Your task to perform on an android device: open chrome privacy settings Image 0: 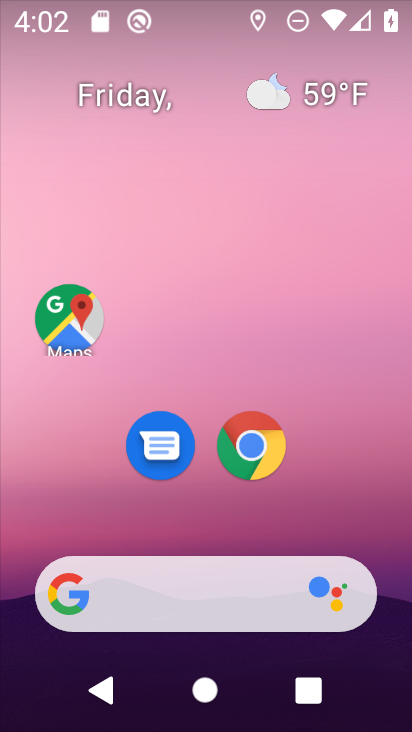
Step 0: click (249, 444)
Your task to perform on an android device: open chrome privacy settings Image 1: 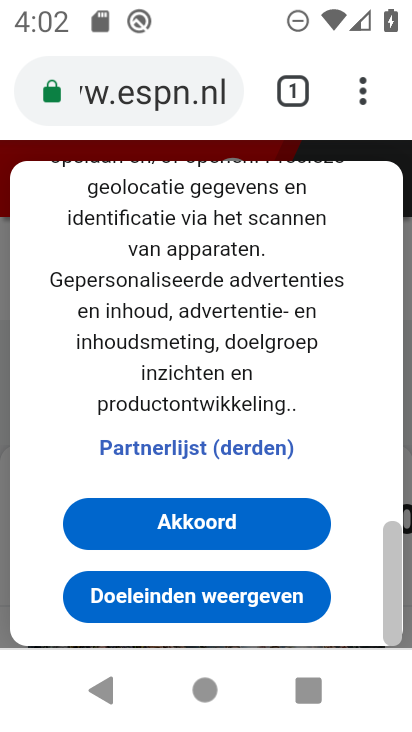
Step 1: click (364, 93)
Your task to perform on an android device: open chrome privacy settings Image 2: 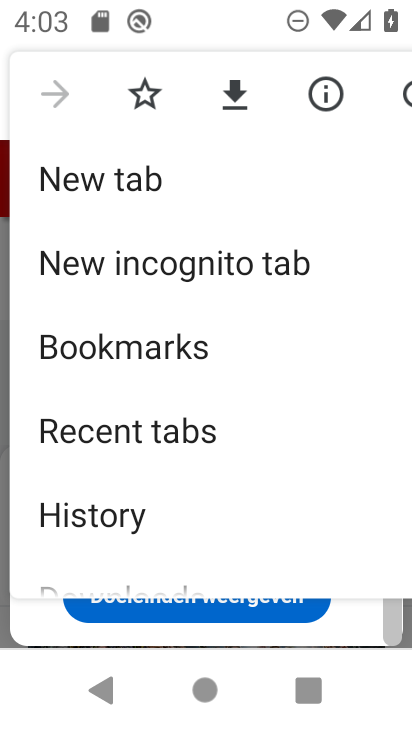
Step 2: drag from (219, 495) to (289, 209)
Your task to perform on an android device: open chrome privacy settings Image 3: 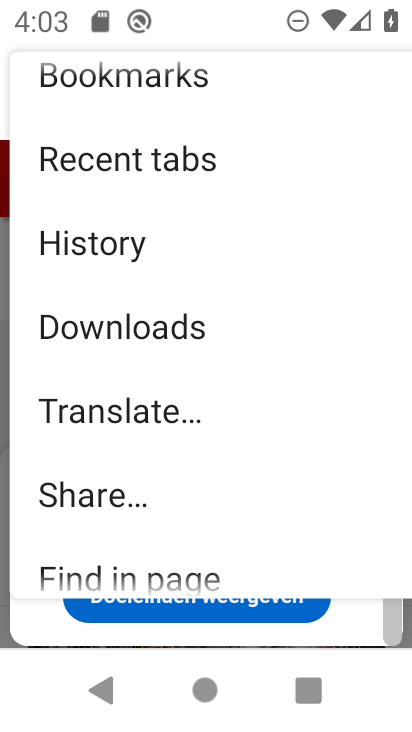
Step 3: drag from (194, 492) to (214, 228)
Your task to perform on an android device: open chrome privacy settings Image 4: 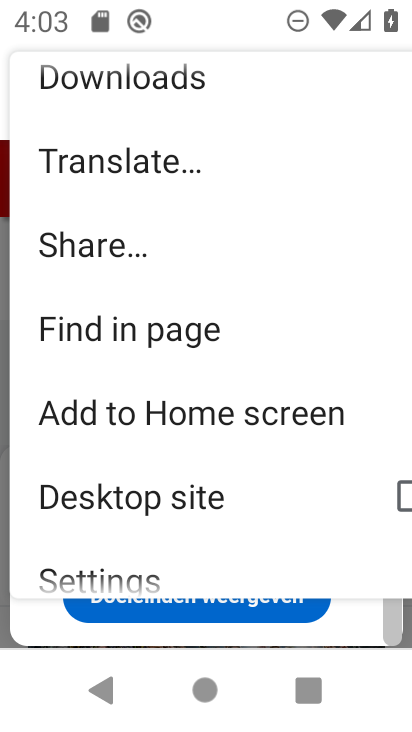
Step 4: drag from (208, 482) to (249, 198)
Your task to perform on an android device: open chrome privacy settings Image 5: 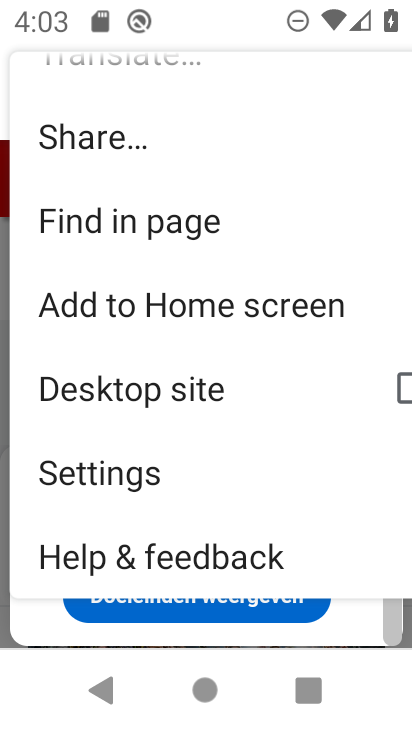
Step 5: click (108, 475)
Your task to perform on an android device: open chrome privacy settings Image 6: 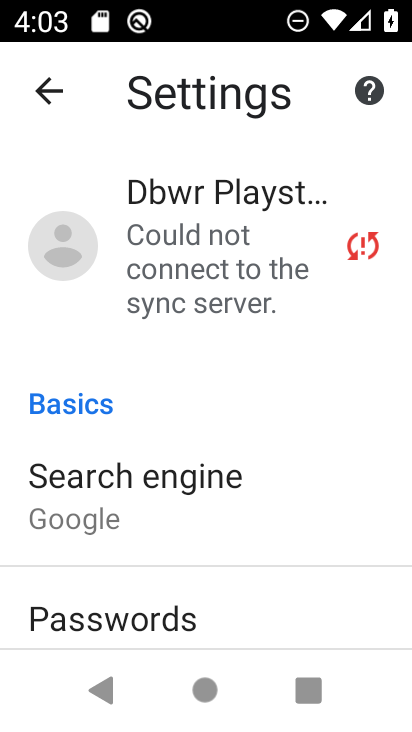
Step 6: drag from (279, 559) to (266, 206)
Your task to perform on an android device: open chrome privacy settings Image 7: 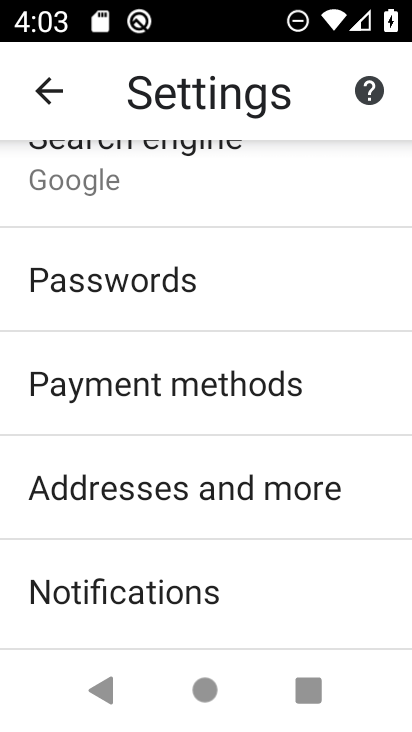
Step 7: drag from (238, 549) to (254, 243)
Your task to perform on an android device: open chrome privacy settings Image 8: 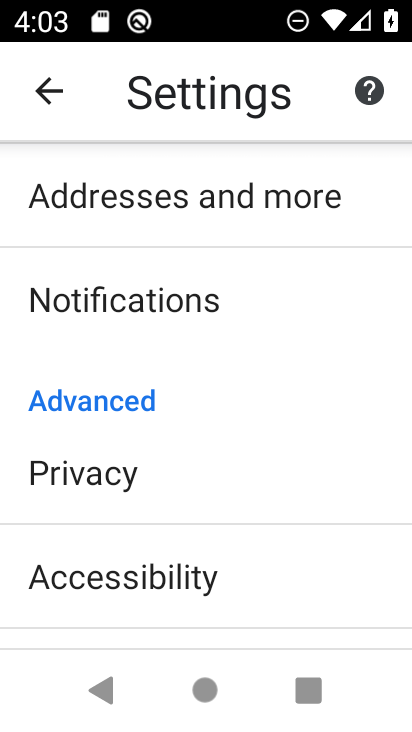
Step 8: click (69, 482)
Your task to perform on an android device: open chrome privacy settings Image 9: 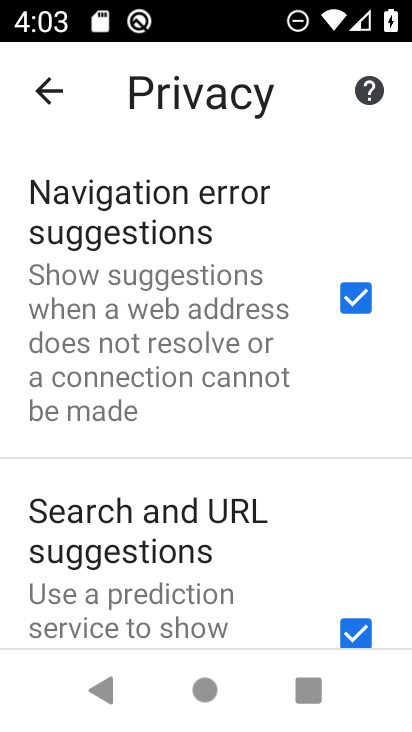
Step 9: task complete